Your task to perform on an android device: turn smart compose on in the gmail app Image 0: 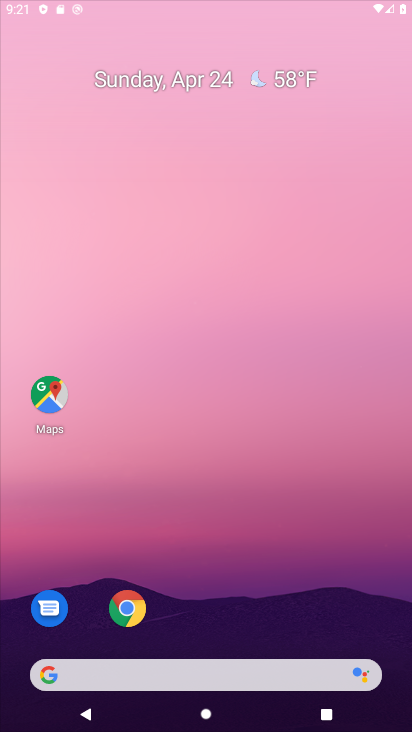
Step 0: drag from (268, 288) to (308, 87)
Your task to perform on an android device: turn smart compose on in the gmail app Image 1: 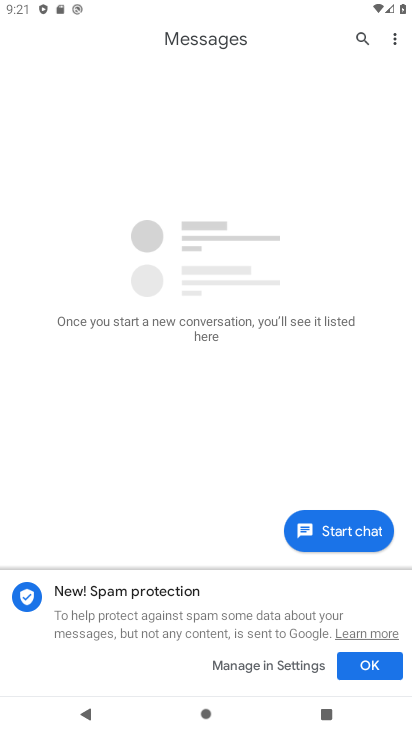
Step 1: press home button
Your task to perform on an android device: turn smart compose on in the gmail app Image 2: 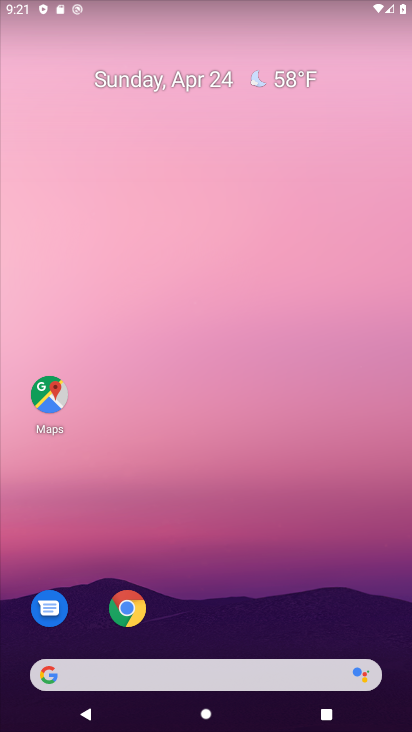
Step 2: drag from (311, 551) to (341, 10)
Your task to perform on an android device: turn smart compose on in the gmail app Image 3: 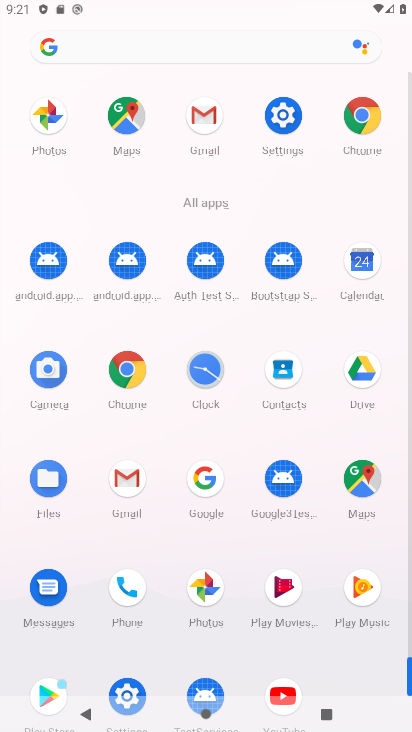
Step 3: click (196, 107)
Your task to perform on an android device: turn smart compose on in the gmail app Image 4: 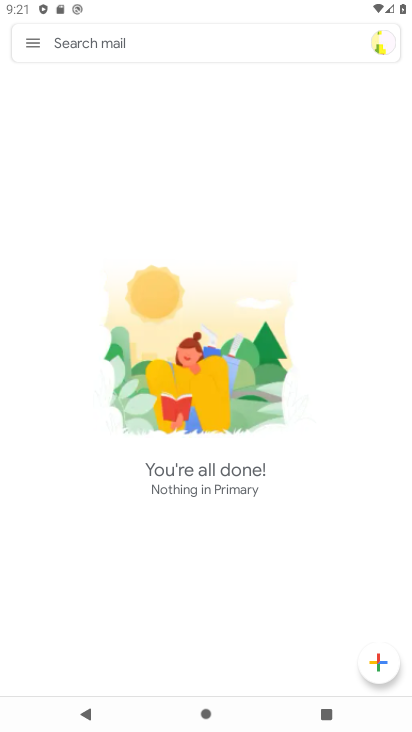
Step 4: click (36, 53)
Your task to perform on an android device: turn smart compose on in the gmail app Image 5: 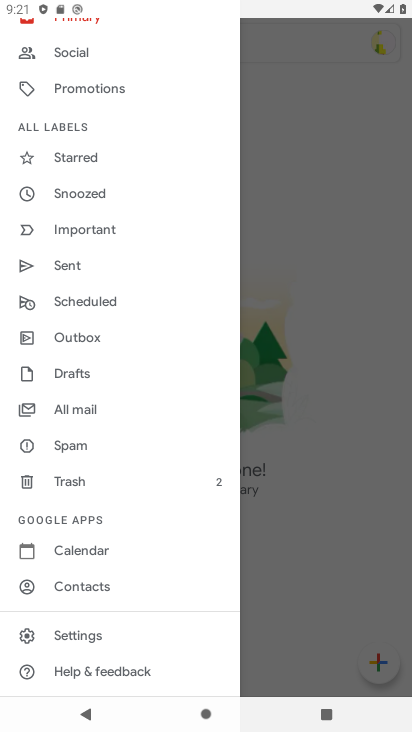
Step 5: drag from (144, 511) to (180, 192)
Your task to perform on an android device: turn smart compose on in the gmail app Image 6: 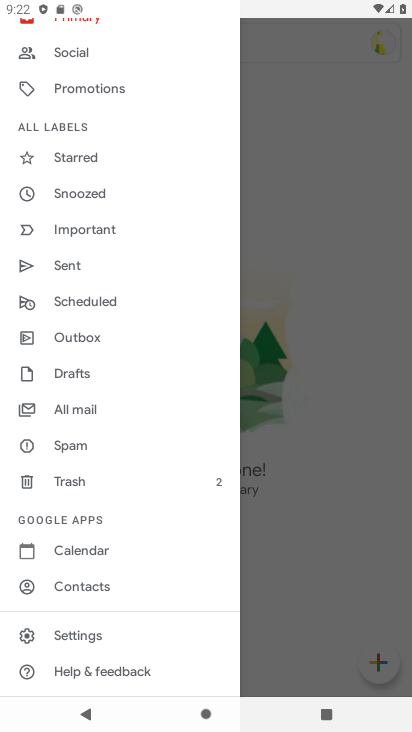
Step 6: drag from (149, 542) to (192, 131)
Your task to perform on an android device: turn smart compose on in the gmail app Image 7: 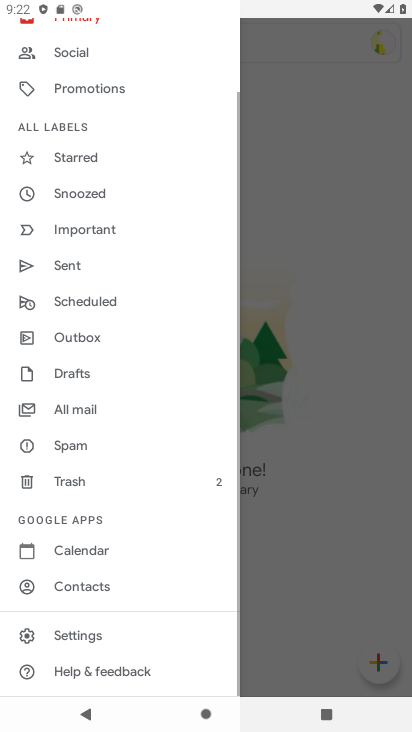
Step 7: click (77, 632)
Your task to perform on an android device: turn smart compose on in the gmail app Image 8: 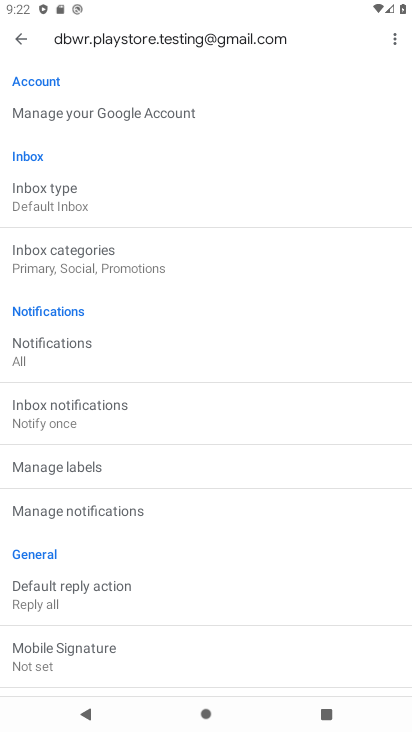
Step 8: task complete